Your task to perform on an android device: turn off notifications in google photos Image 0: 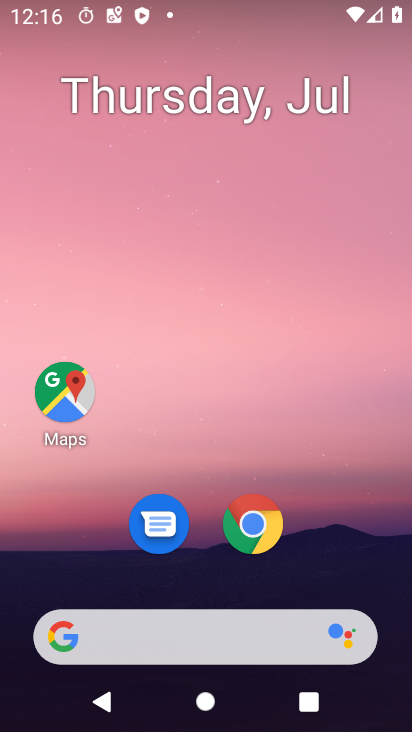
Step 0: press home button
Your task to perform on an android device: turn off notifications in google photos Image 1: 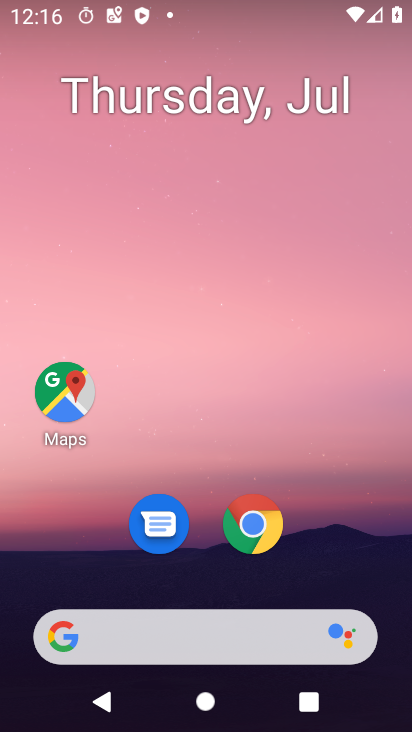
Step 1: drag from (201, 626) to (350, 109)
Your task to perform on an android device: turn off notifications in google photos Image 2: 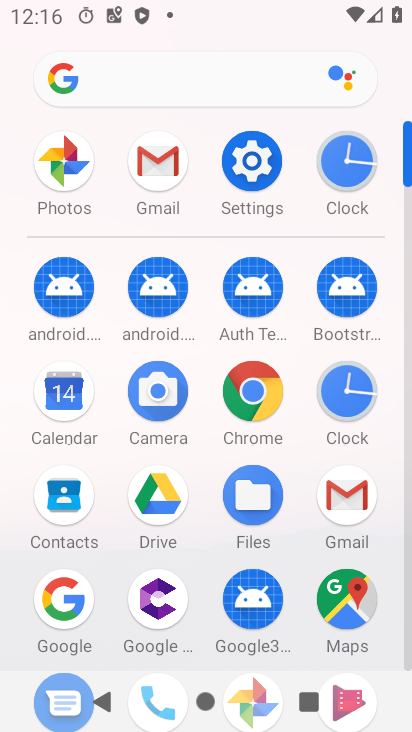
Step 2: click (79, 170)
Your task to perform on an android device: turn off notifications in google photos Image 3: 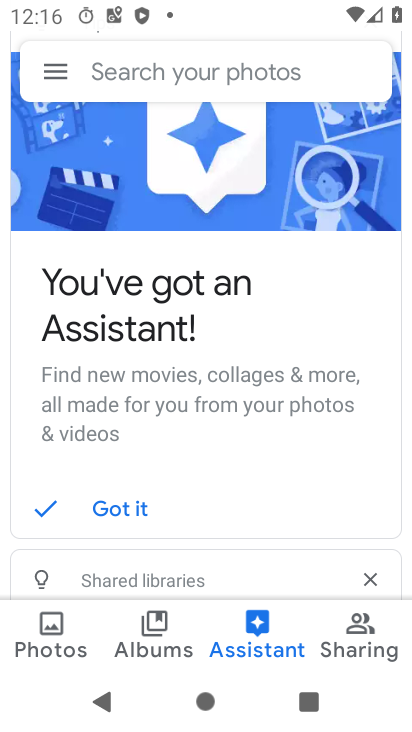
Step 3: click (59, 67)
Your task to perform on an android device: turn off notifications in google photos Image 4: 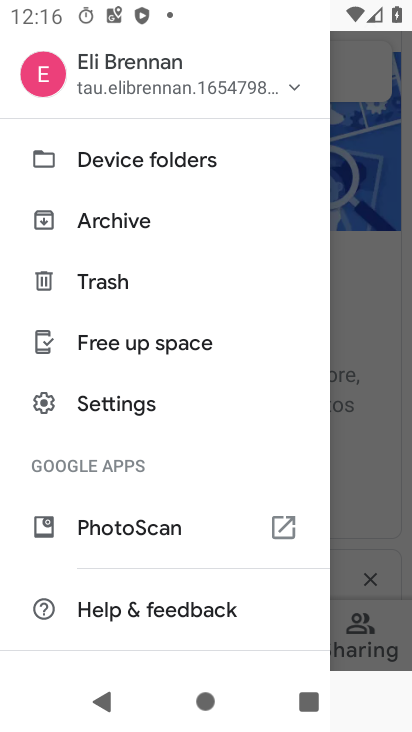
Step 4: click (135, 411)
Your task to perform on an android device: turn off notifications in google photos Image 5: 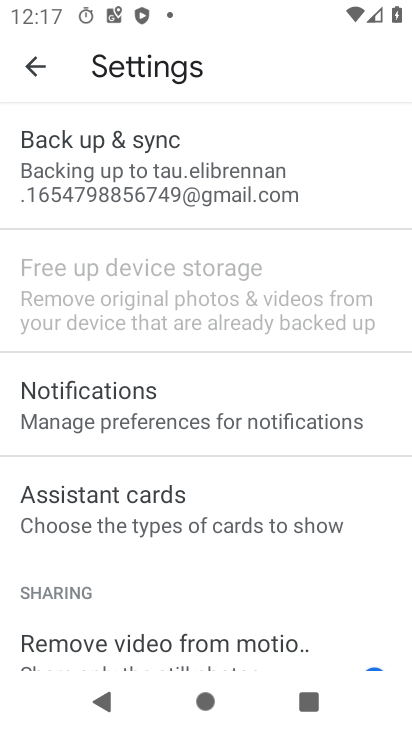
Step 5: click (187, 413)
Your task to perform on an android device: turn off notifications in google photos Image 6: 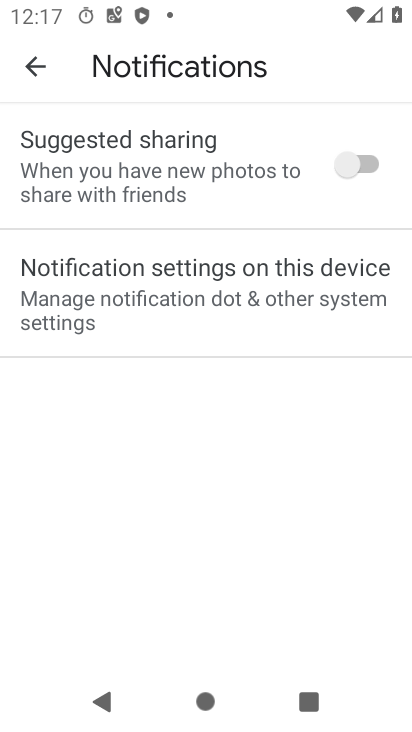
Step 6: click (164, 308)
Your task to perform on an android device: turn off notifications in google photos Image 7: 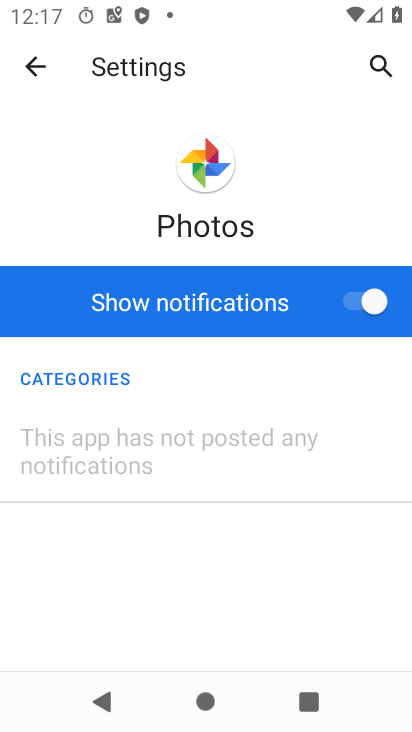
Step 7: click (352, 308)
Your task to perform on an android device: turn off notifications in google photos Image 8: 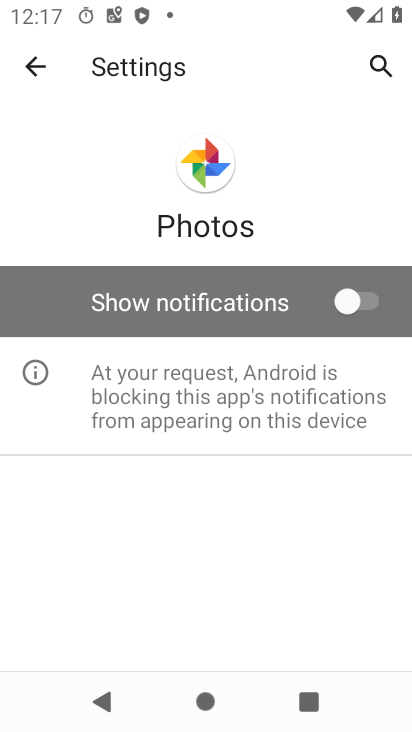
Step 8: task complete